Your task to perform on an android device: What is the recent news? Image 0: 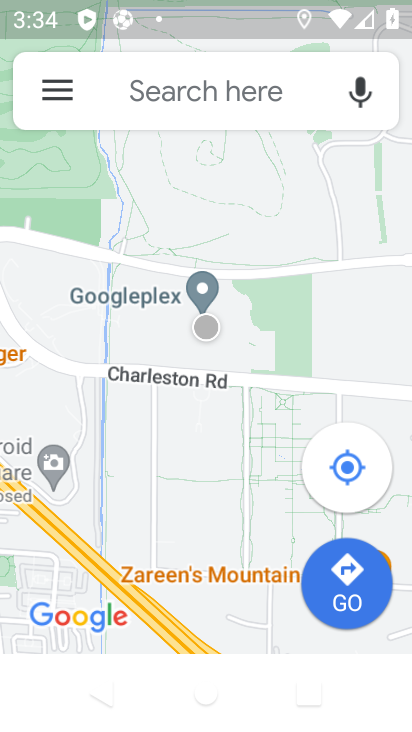
Step 0: press home button
Your task to perform on an android device: What is the recent news? Image 1: 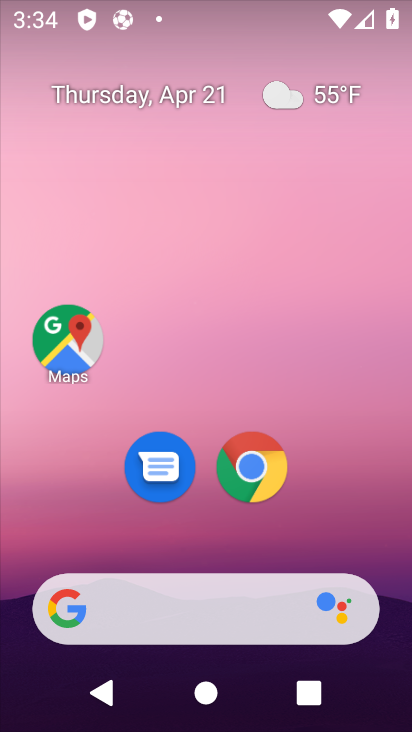
Step 1: drag from (229, 670) to (183, 91)
Your task to perform on an android device: What is the recent news? Image 2: 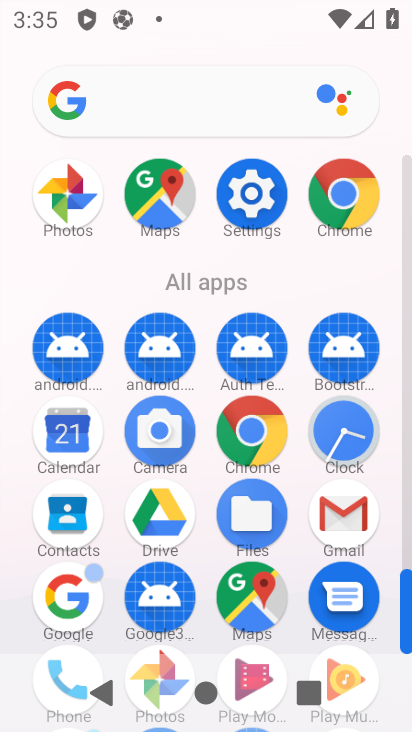
Step 2: click (67, 599)
Your task to perform on an android device: What is the recent news? Image 3: 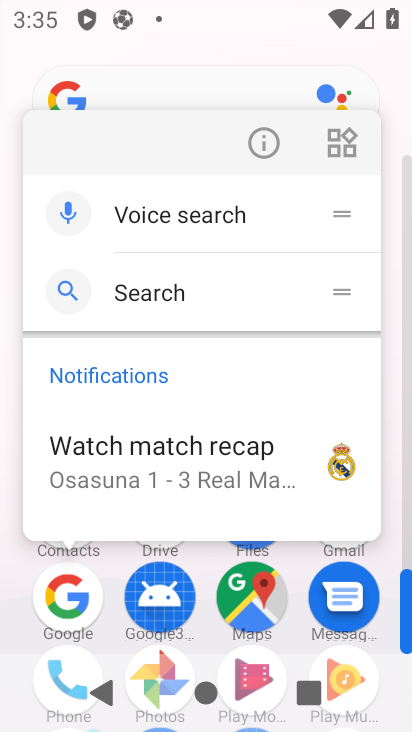
Step 3: click (217, 95)
Your task to perform on an android device: What is the recent news? Image 4: 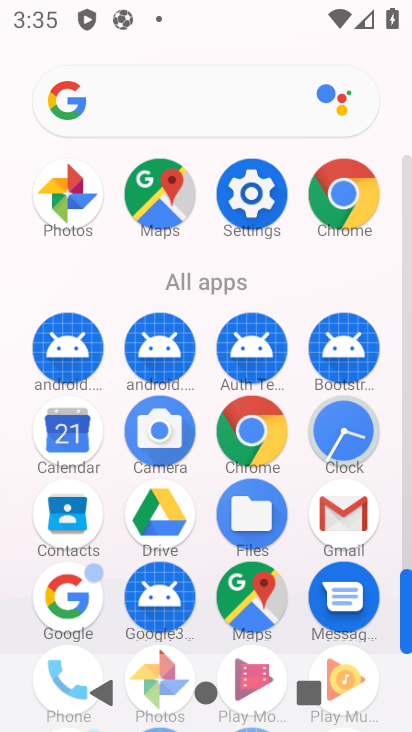
Step 4: type "newa"
Your task to perform on an android device: What is the recent news? Image 5: 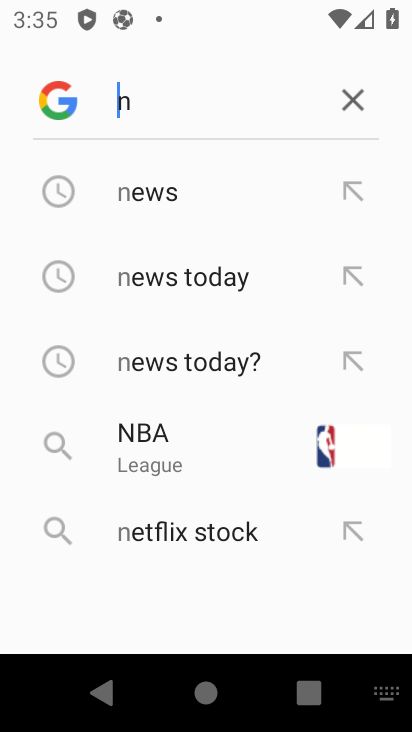
Step 5: click (146, 197)
Your task to perform on an android device: What is the recent news? Image 6: 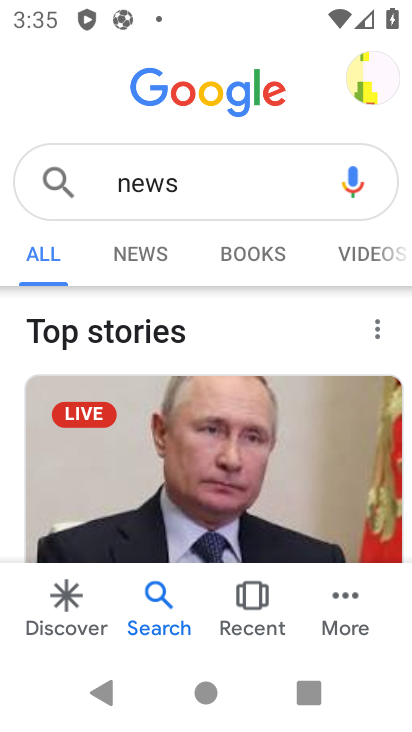
Step 6: task complete